Your task to perform on an android device: What is the recent news? Image 0: 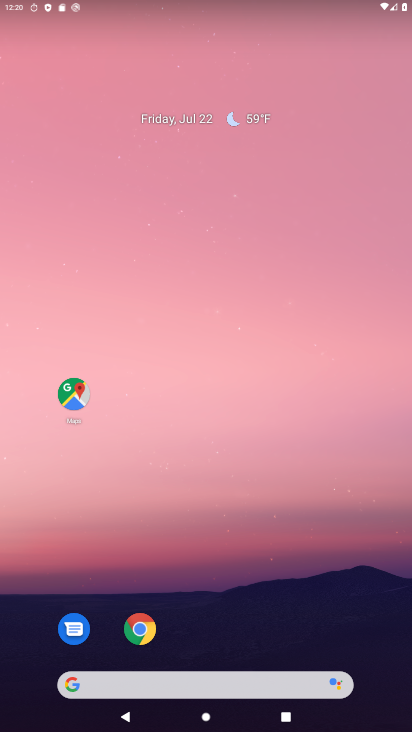
Step 0: drag from (275, 683) to (266, 130)
Your task to perform on an android device: What is the recent news? Image 1: 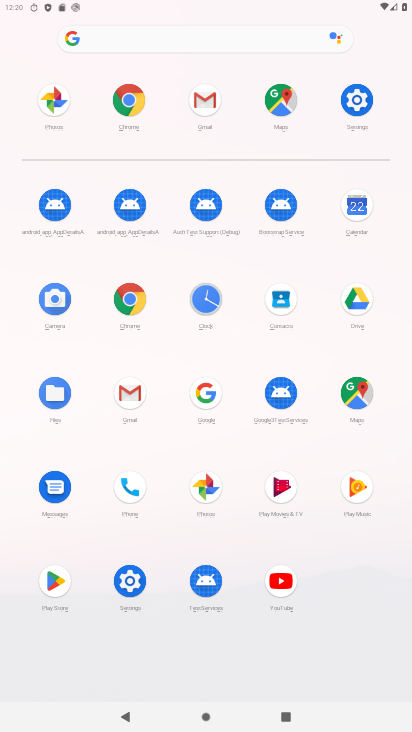
Step 1: click (124, 296)
Your task to perform on an android device: What is the recent news? Image 2: 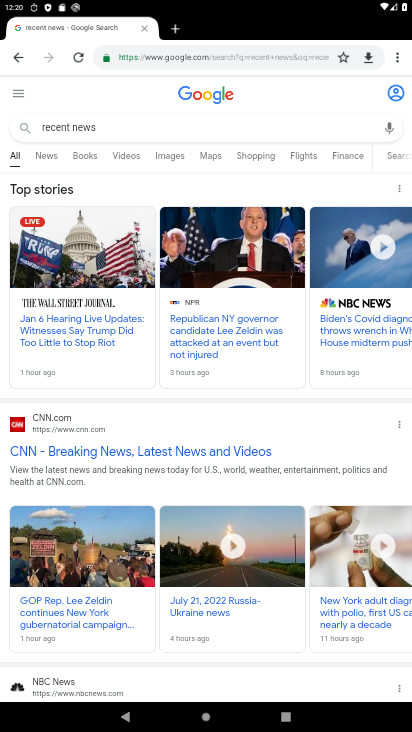
Step 2: task complete